Your task to perform on an android device: empty trash in google photos Image 0: 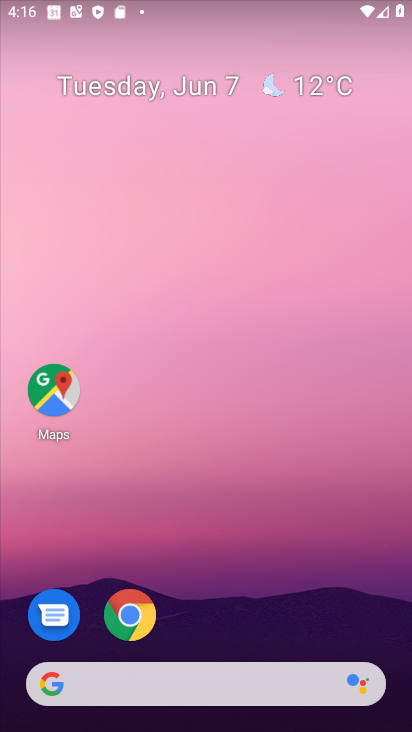
Step 0: drag from (221, 598) to (236, 213)
Your task to perform on an android device: empty trash in google photos Image 1: 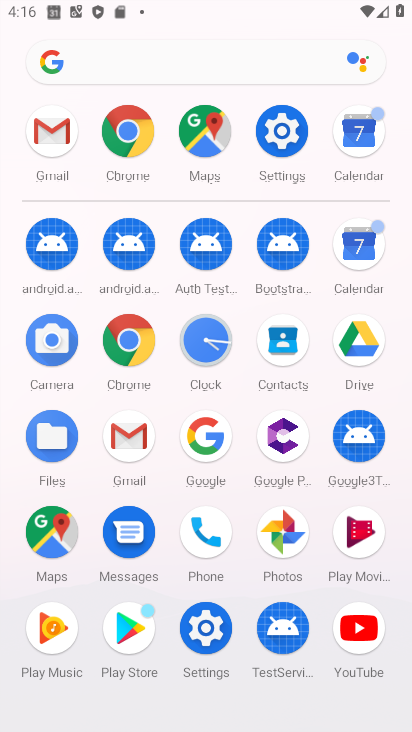
Step 1: click (289, 530)
Your task to perform on an android device: empty trash in google photos Image 2: 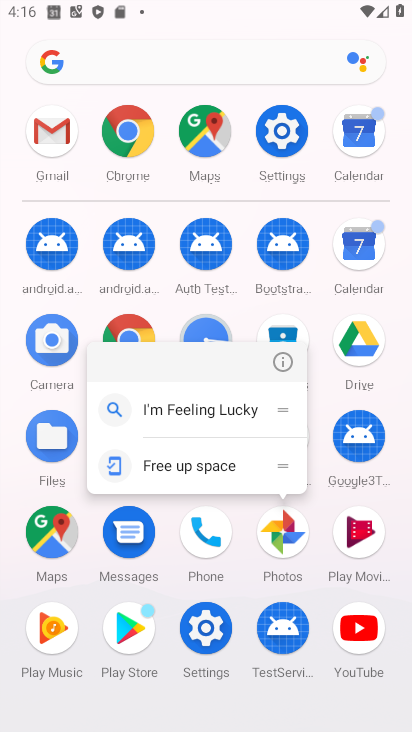
Step 2: drag from (277, 655) to (297, 465)
Your task to perform on an android device: empty trash in google photos Image 3: 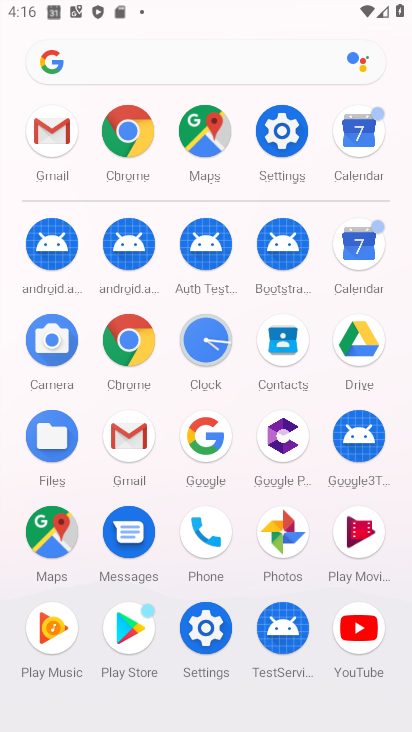
Step 3: click (272, 538)
Your task to perform on an android device: empty trash in google photos Image 4: 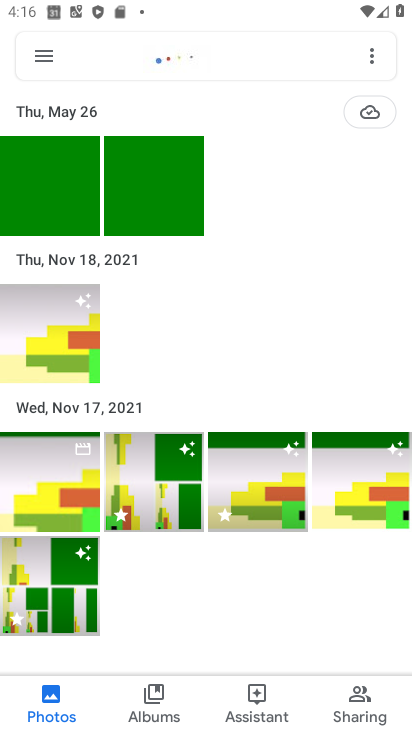
Step 4: click (57, 48)
Your task to perform on an android device: empty trash in google photos Image 5: 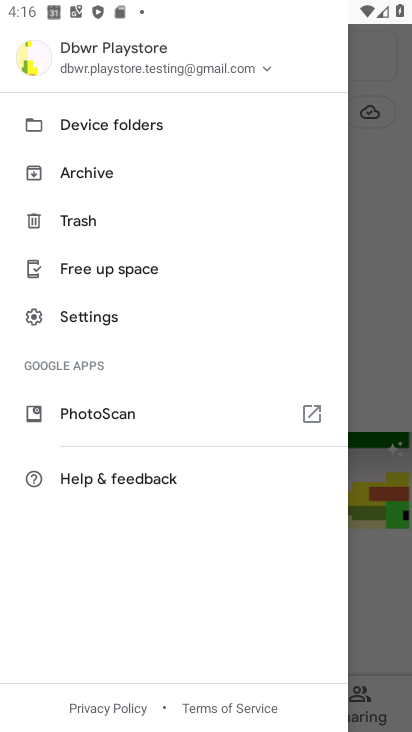
Step 5: click (79, 218)
Your task to perform on an android device: empty trash in google photos Image 6: 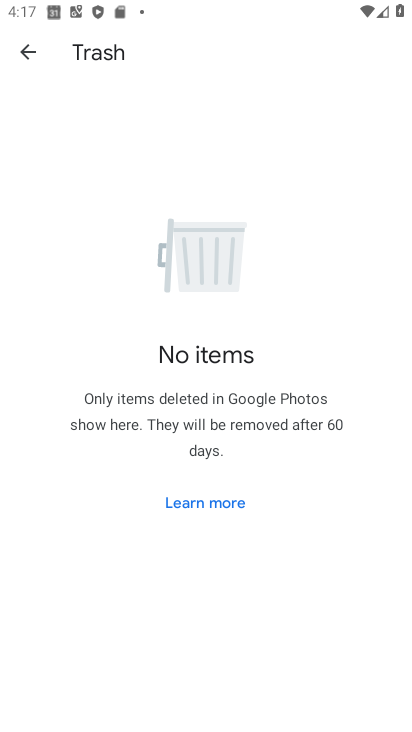
Step 6: task complete